Your task to perform on an android device: turn on improve location accuracy Image 0: 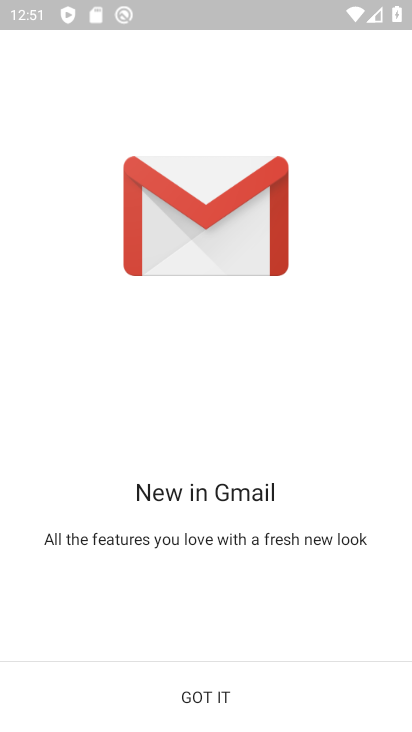
Step 0: click (214, 697)
Your task to perform on an android device: turn on improve location accuracy Image 1: 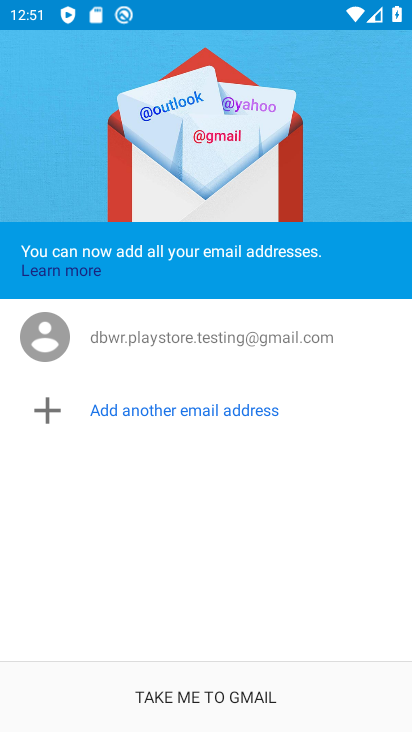
Step 1: press home button
Your task to perform on an android device: turn on improve location accuracy Image 2: 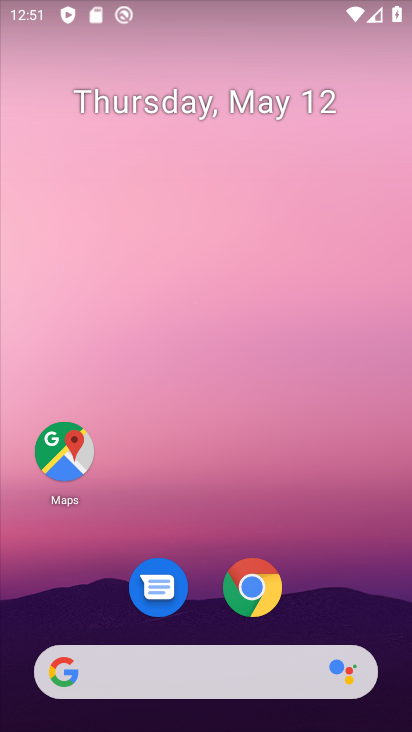
Step 2: drag from (333, 607) to (237, 157)
Your task to perform on an android device: turn on improve location accuracy Image 3: 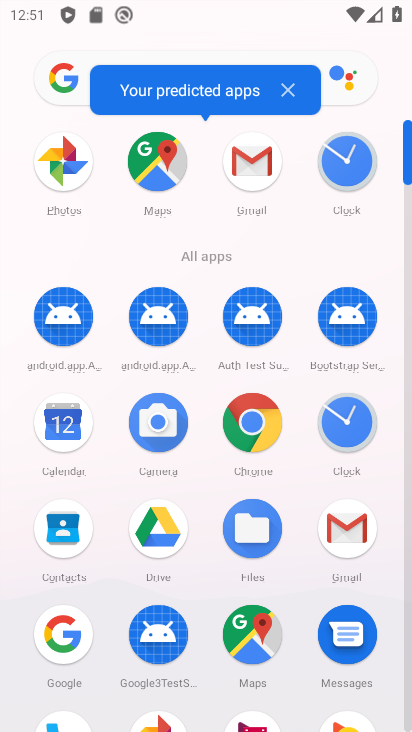
Step 3: click (66, 167)
Your task to perform on an android device: turn on improve location accuracy Image 4: 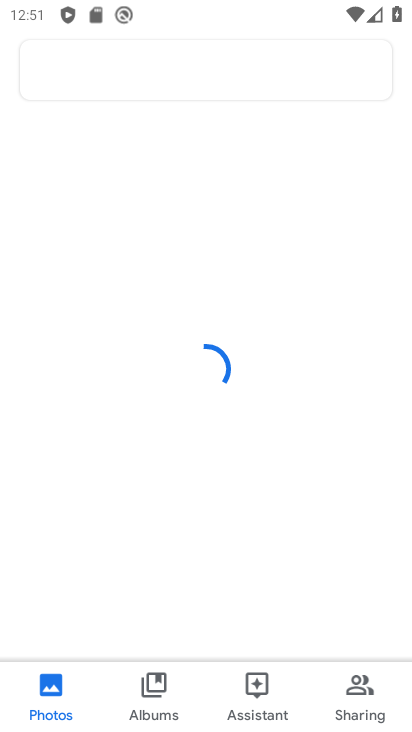
Step 4: press back button
Your task to perform on an android device: turn on improve location accuracy Image 5: 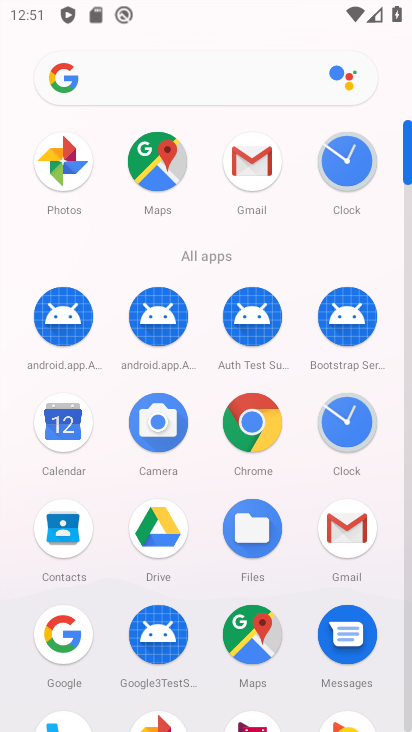
Step 5: press back button
Your task to perform on an android device: turn on improve location accuracy Image 6: 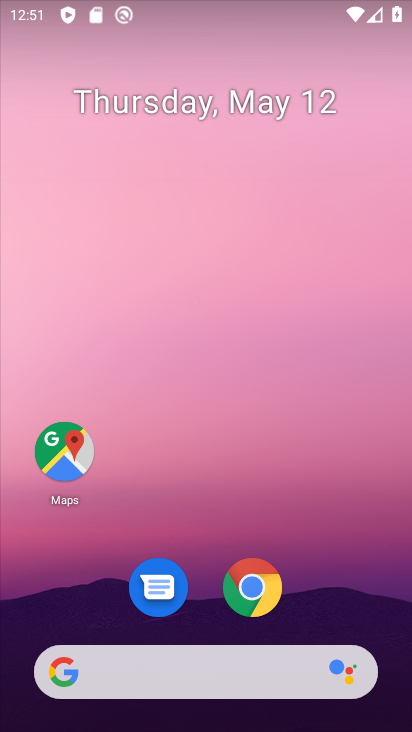
Step 6: drag from (206, 536) to (203, 70)
Your task to perform on an android device: turn on improve location accuracy Image 7: 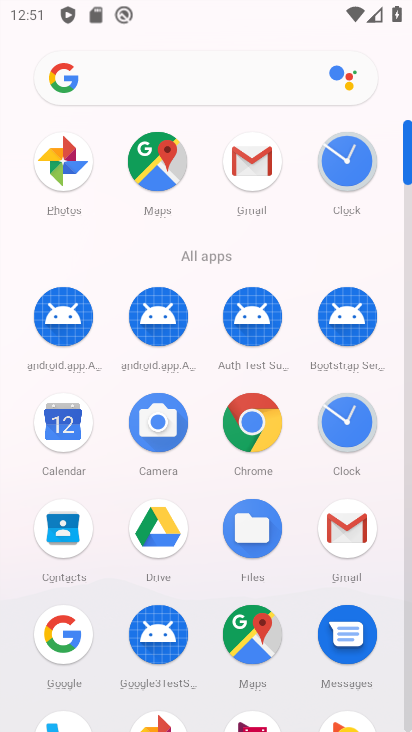
Step 7: drag from (98, 589) to (130, 207)
Your task to perform on an android device: turn on improve location accuracy Image 8: 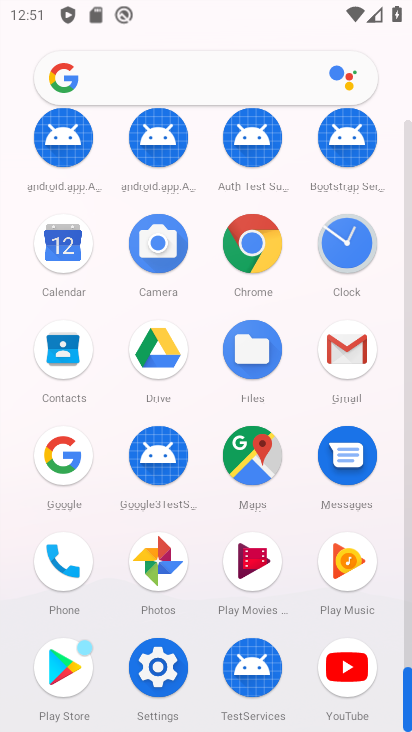
Step 8: click (158, 667)
Your task to perform on an android device: turn on improve location accuracy Image 9: 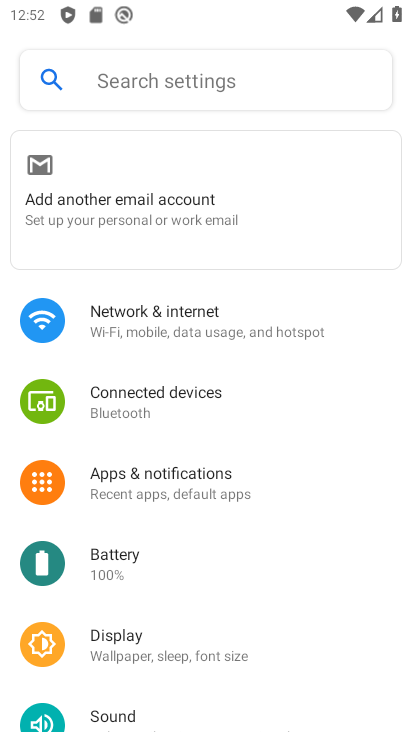
Step 9: drag from (205, 564) to (221, 383)
Your task to perform on an android device: turn on improve location accuracy Image 10: 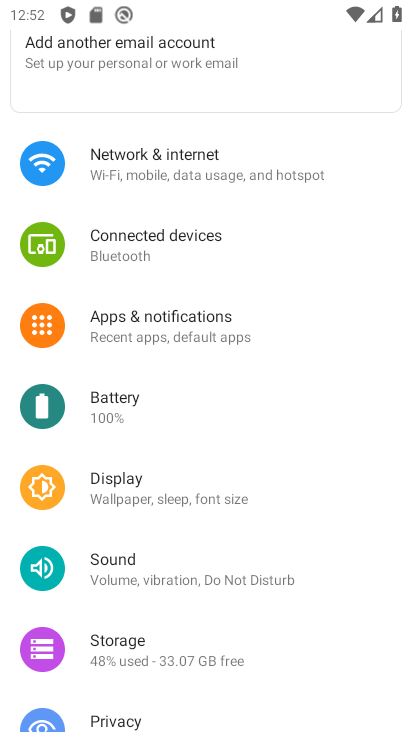
Step 10: drag from (177, 622) to (224, 452)
Your task to perform on an android device: turn on improve location accuracy Image 11: 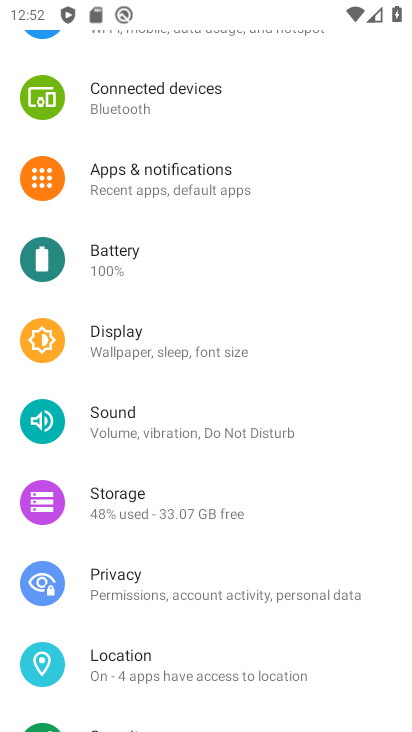
Step 11: drag from (162, 615) to (234, 456)
Your task to perform on an android device: turn on improve location accuracy Image 12: 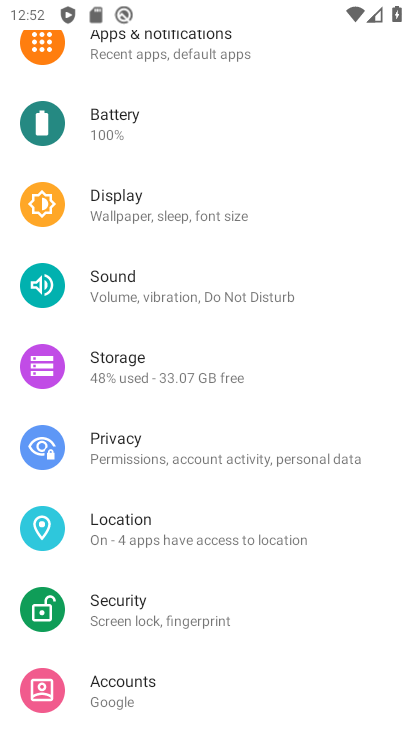
Step 12: click (159, 534)
Your task to perform on an android device: turn on improve location accuracy Image 13: 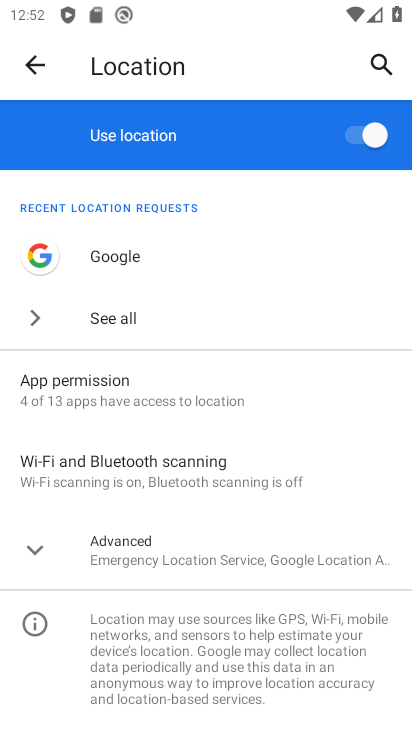
Step 13: click (187, 556)
Your task to perform on an android device: turn on improve location accuracy Image 14: 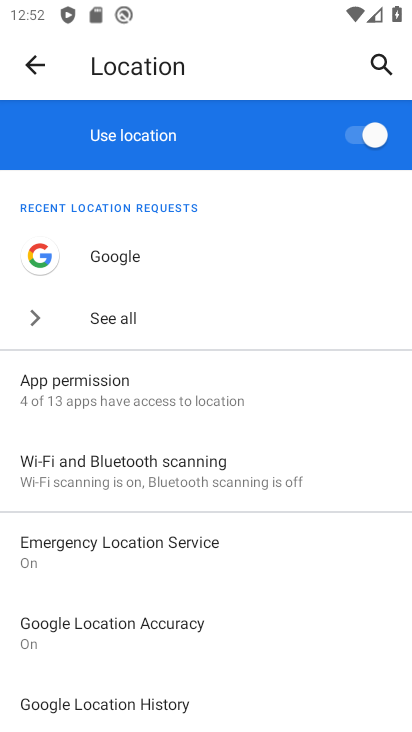
Step 14: click (175, 624)
Your task to perform on an android device: turn on improve location accuracy Image 15: 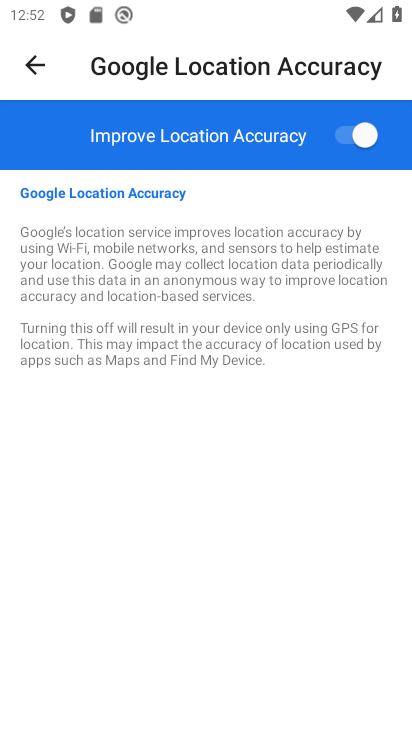
Step 15: task complete